Your task to perform on an android device: turn on the 12-hour format for clock Image 0: 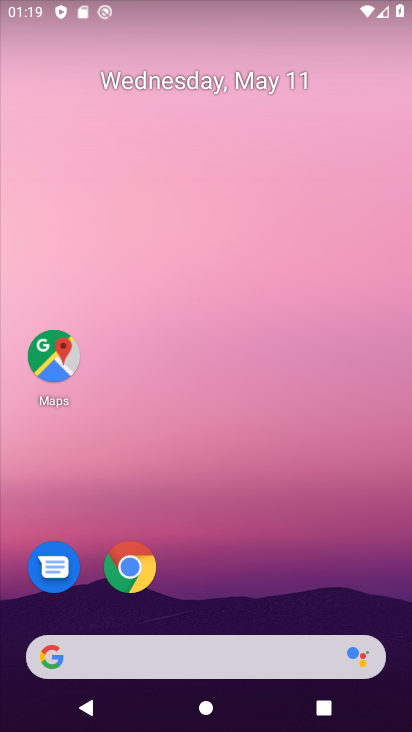
Step 0: drag from (218, 617) to (153, 3)
Your task to perform on an android device: turn on the 12-hour format for clock Image 1: 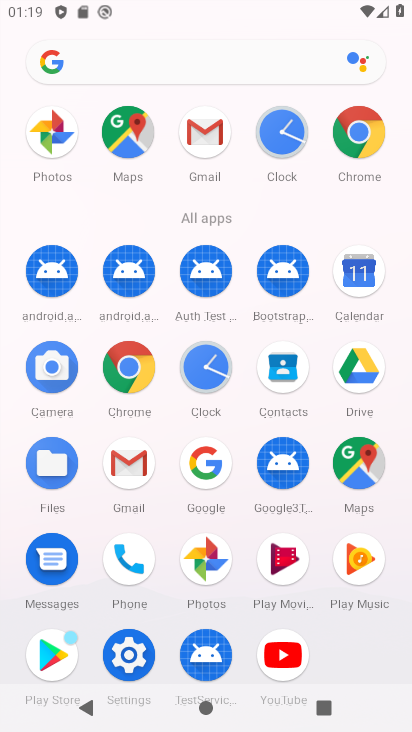
Step 1: click (210, 352)
Your task to perform on an android device: turn on the 12-hour format for clock Image 2: 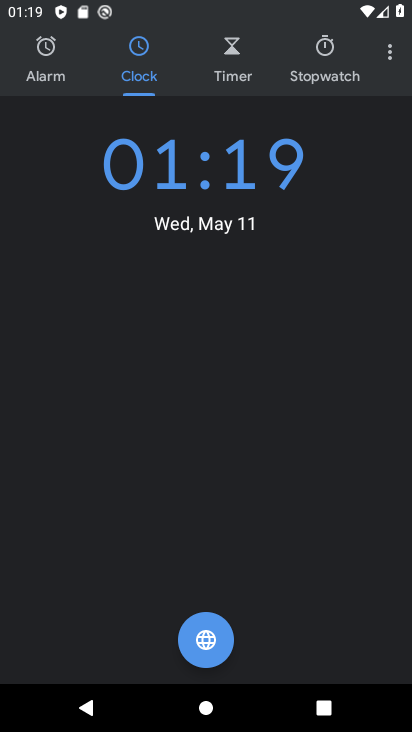
Step 2: click (387, 66)
Your task to perform on an android device: turn on the 12-hour format for clock Image 3: 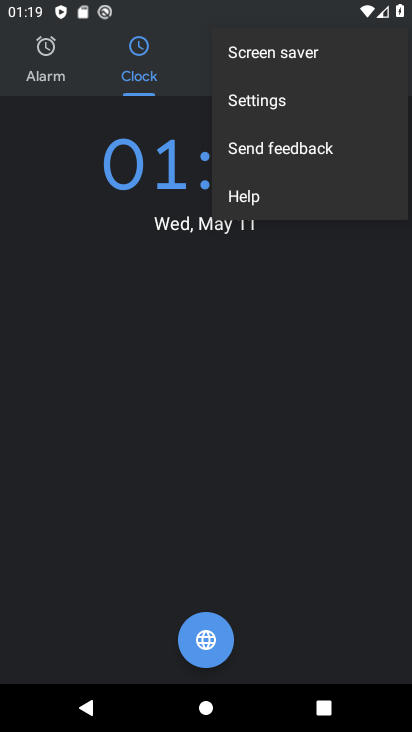
Step 3: click (267, 93)
Your task to perform on an android device: turn on the 12-hour format for clock Image 4: 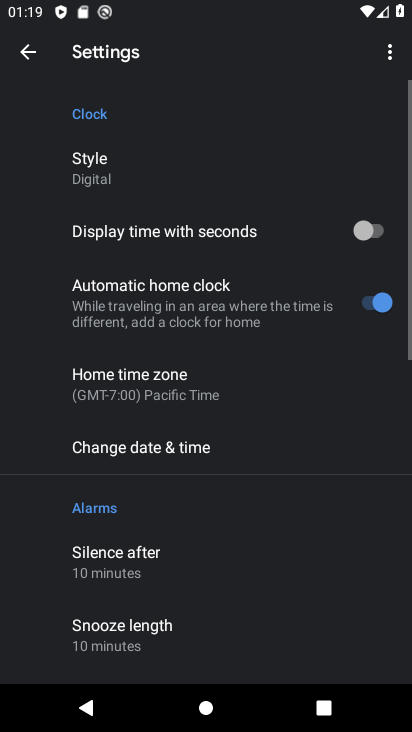
Step 4: drag from (222, 569) to (192, 173)
Your task to perform on an android device: turn on the 12-hour format for clock Image 5: 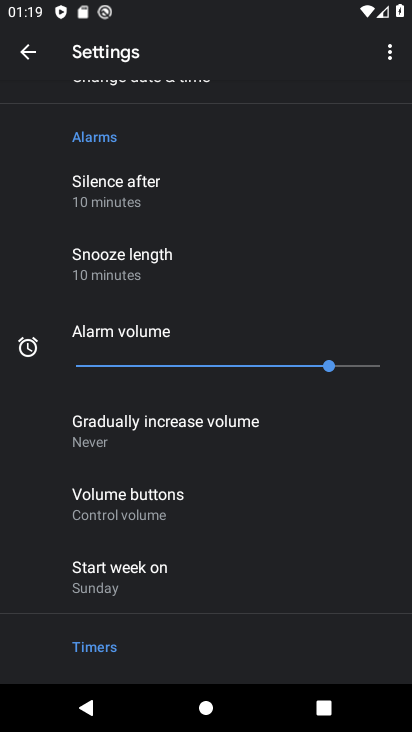
Step 5: click (157, 620)
Your task to perform on an android device: turn on the 12-hour format for clock Image 6: 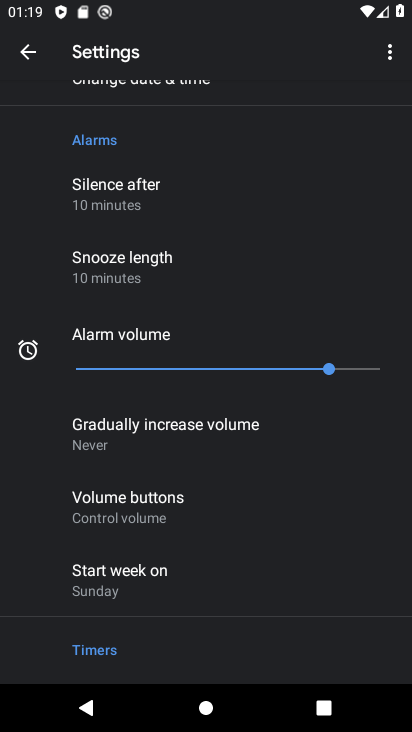
Step 6: click (117, 90)
Your task to perform on an android device: turn on the 12-hour format for clock Image 7: 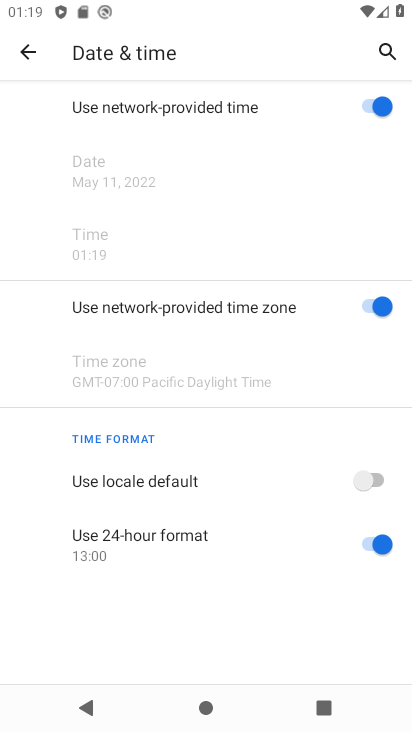
Step 7: click (380, 548)
Your task to perform on an android device: turn on the 12-hour format for clock Image 8: 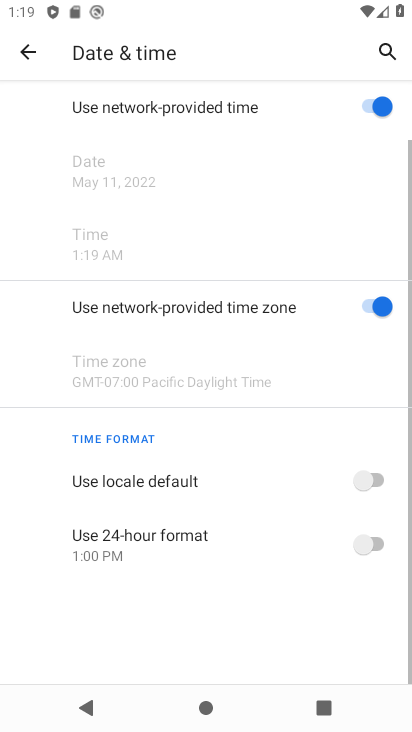
Step 8: task complete